Your task to perform on an android device: turn on airplane mode Image 0: 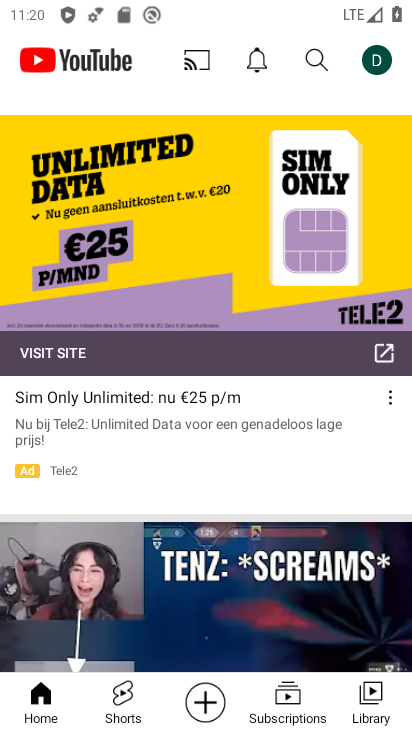
Step 0: press home button
Your task to perform on an android device: turn on airplane mode Image 1: 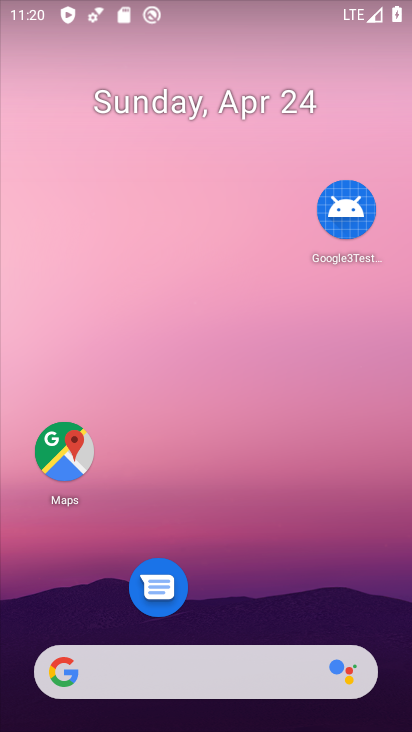
Step 1: drag from (318, 551) to (331, 132)
Your task to perform on an android device: turn on airplane mode Image 2: 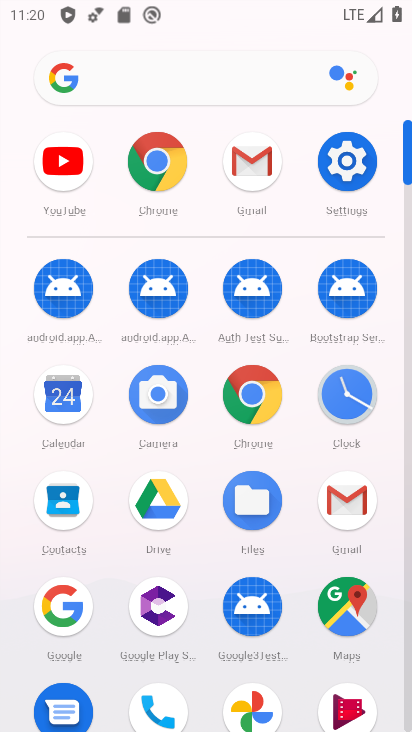
Step 2: click (337, 170)
Your task to perform on an android device: turn on airplane mode Image 3: 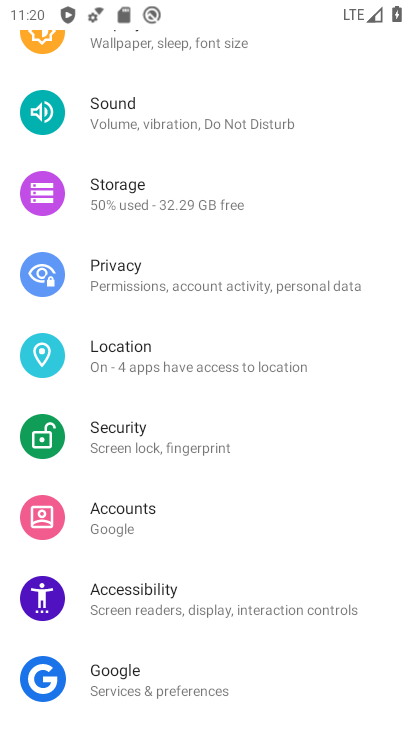
Step 3: drag from (354, 100) to (339, 454)
Your task to perform on an android device: turn on airplane mode Image 4: 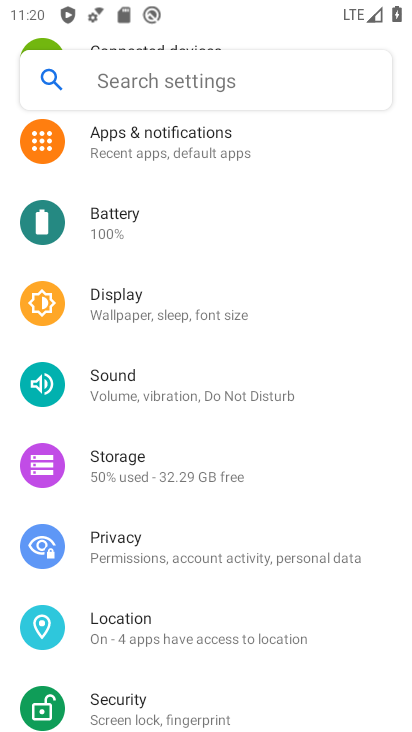
Step 4: drag from (301, 138) to (351, 532)
Your task to perform on an android device: turn on airplane mode Image 5: 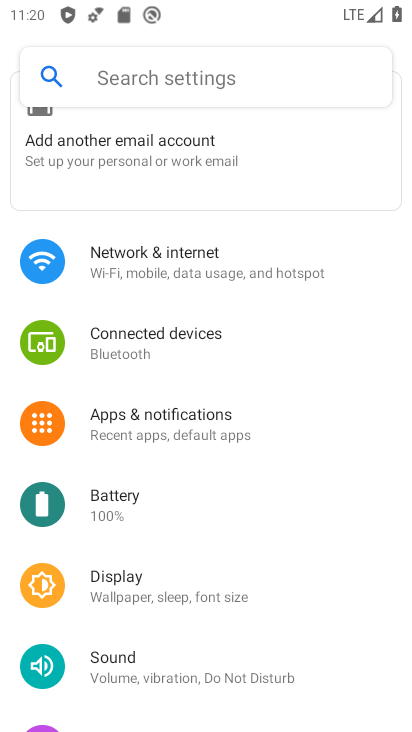
Step 5: click (212, 262)
Your task to perform on an android device: turn on airplane mode Image 6: 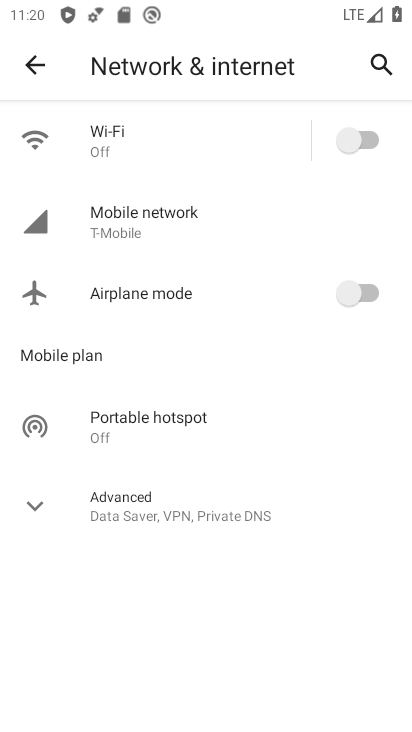
Step 6: click (369, 287)
Your task to perform on an android device: turn on airplane mode Image 7: 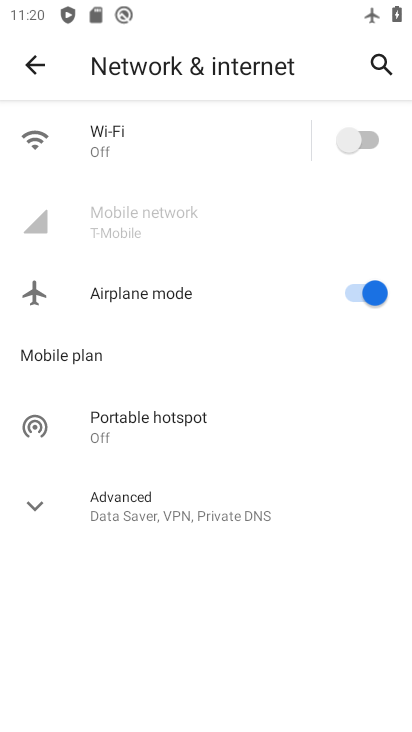
Step 7: task complete